Your task to perform on an android device: turn vacation reply on in the gmail app Image 0: 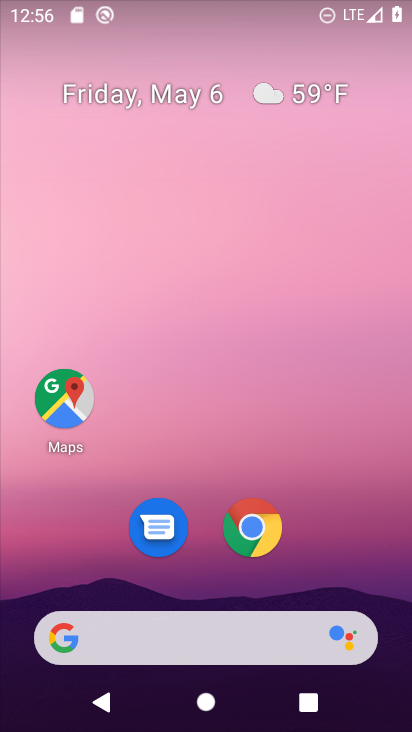
Step 0: drag from (322, 554) to (228, 9)
Your task to perform on an android device: turn vacation reply on in the gmail app Image 1: 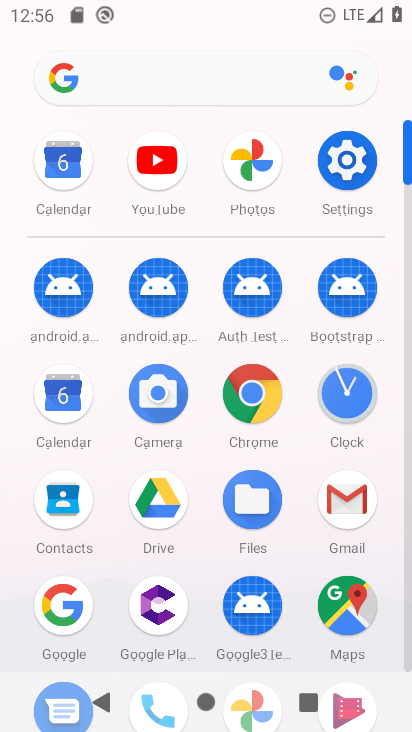
Step 1: click (349, 493)
Your task to perform on an android device: turn vacation reply on in the gmail app Image 2: 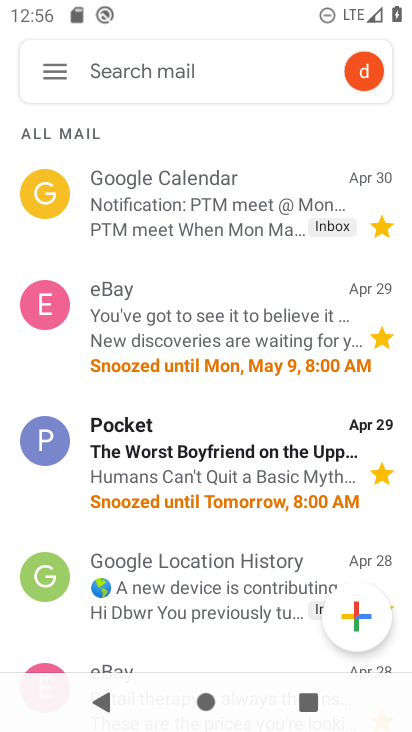
Step 2: click (58, 72)
Your task to perform on an android device: turn vacation reply on in the gmail app Image 3: 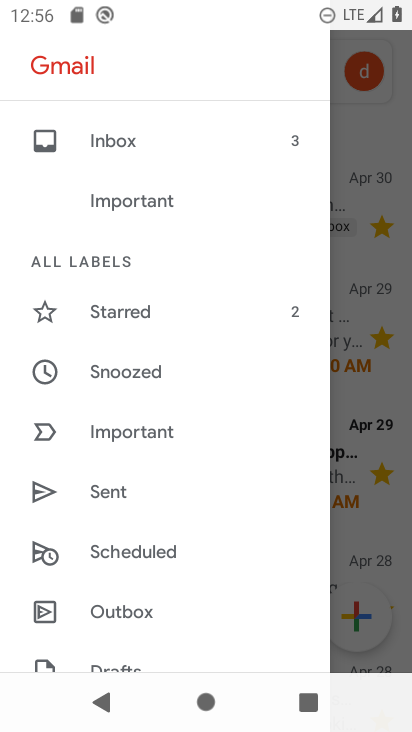
Step 3: drag from (189, 540) to (180, 421)
Your task to perform on an android device: turn vacation reply on in the gmail app Image 4: 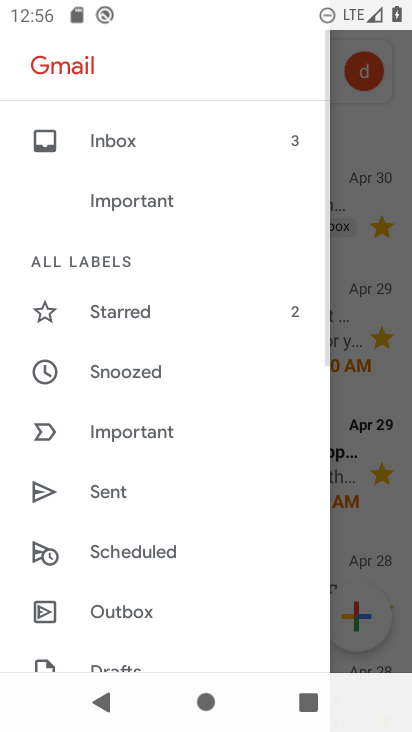
Step 4: drag from (172, 561) to (178, 379)
Your task to perform on an android device: turn vacation reply on in the gmail app Image 5: 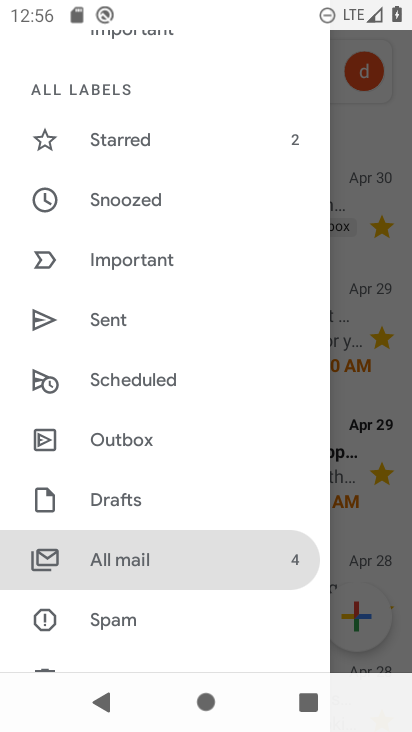
Step 5: drag from (162, 469) to (180, 303)
Your task to perform on an android device: turn vacation reply on in the gmail app Image 6: 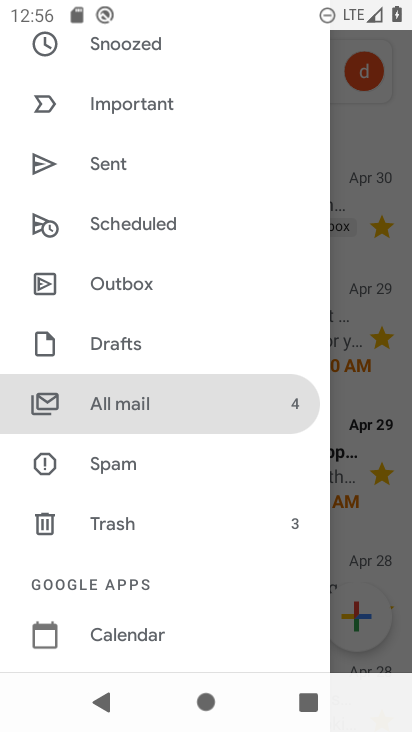
Step 6: drag from (182, 524) to (163, 288)
Your task to perform on an android device: turn vacation reply on in the gmail app Image 7: 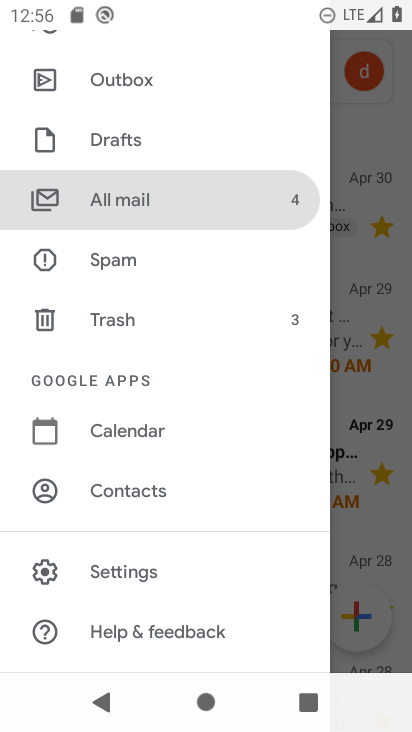
Step 7: click (139, 567)
Your task to perform on an android device: turn vacation reply on in the gmail app Image 8: 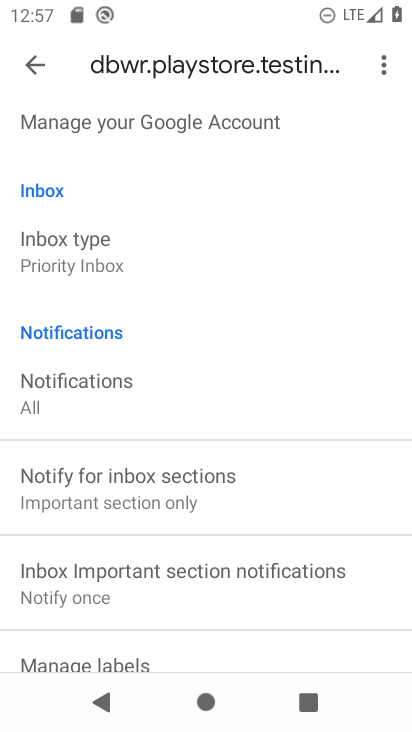
Step 8: drag from (156, 398) to (218, 271)
Your task to perform on an android device: turn vacation reply on in the gmail app Image 9: 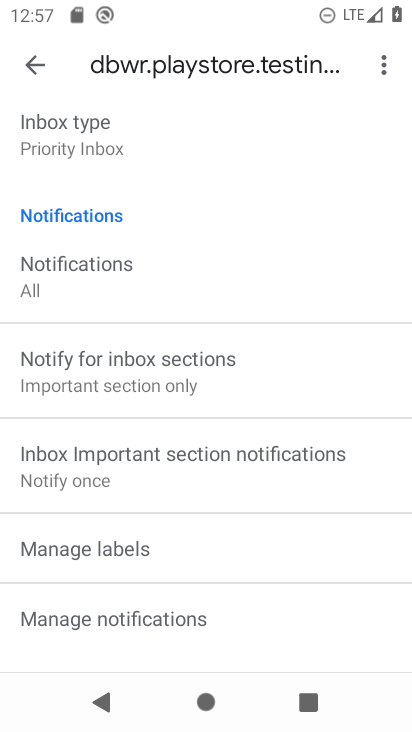
Step 9: drag from (212, 546) to (257, 405)
Your task to perform on an android device: turn vacation reply on in the gmail app Image 10: 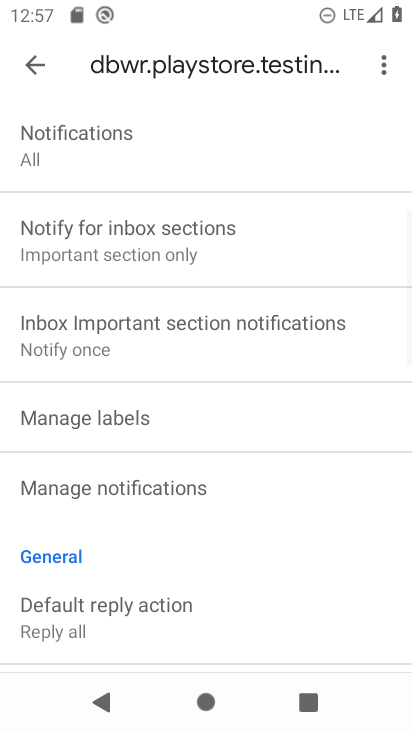
Step 10: drag from (208, 560) to (265, 416)
Your task to perform on an android device: turn vacation reply on in the gmail app Image 11: 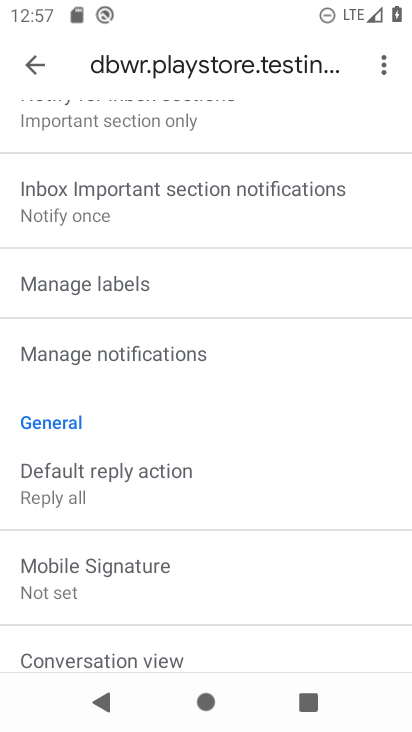
Step 11: drag from (207, 592) to (261, 478)
Your task to perform on an android device: turn vacation reply on in the gmail app Image 12: 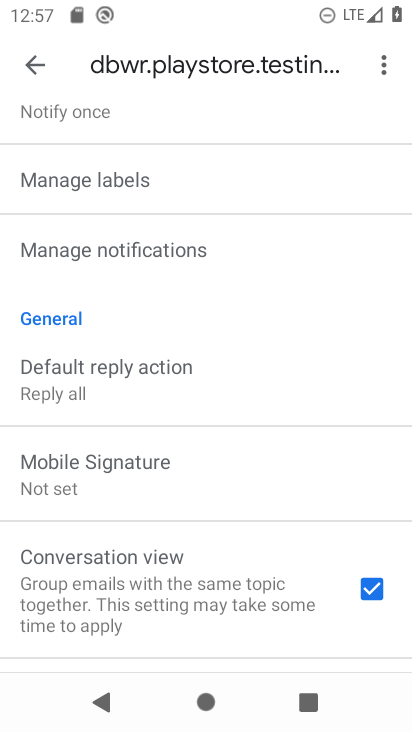
Step 12: drag from (225, 555) to (250, 445)
Your task to perform on an android device: turn vacation reply on in the gmail app Image 13: 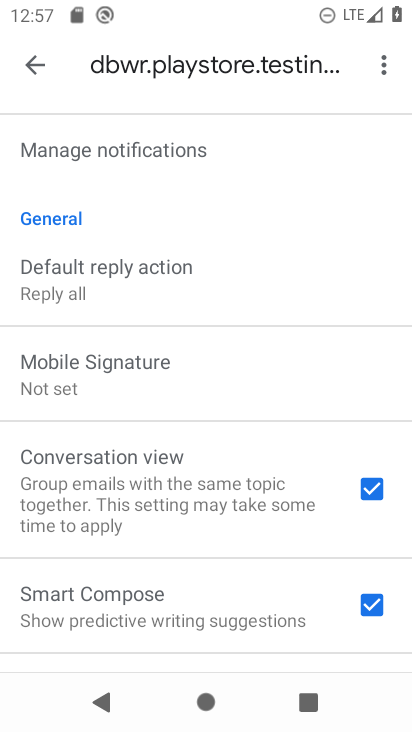
Step 13: drag from (209, 598) to (263, 475)
Your task to perform on an android device: turn vacation reply on in the gmail app Image 14: 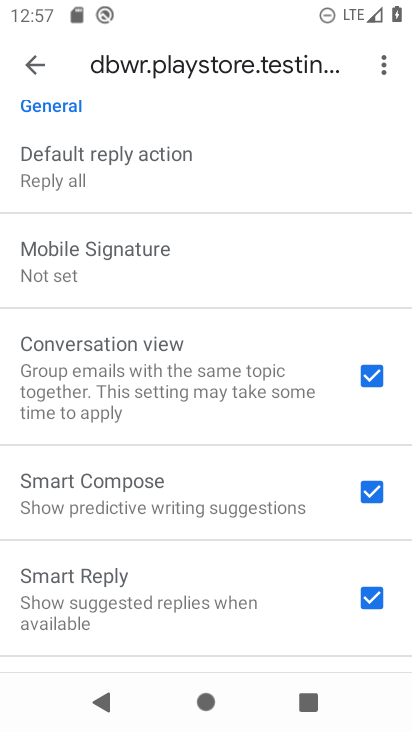
Step 14: drag from (191, 577) to (247, 458)
Your task to perform on an android device: turn vacation reply on in the gmail app Image 15: 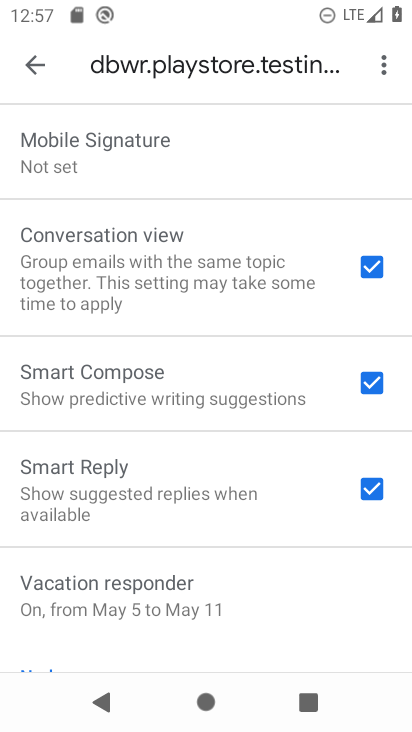
Step 15: click (166, 587)
Your task to perform on an android device: turn vacation reply on in the gmail app Image 16: 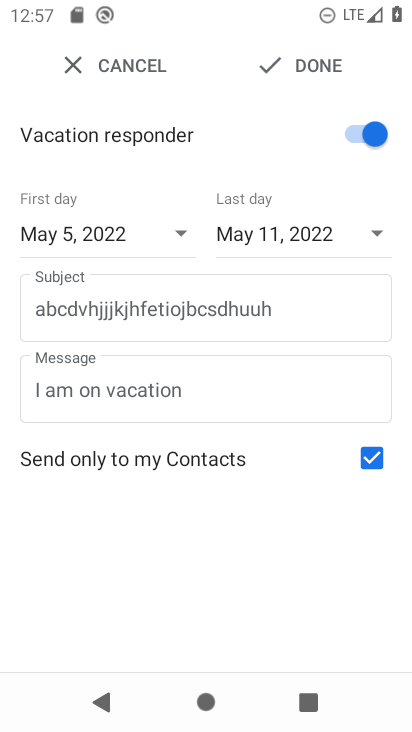
Step 16: task complete